Your task to perform on an android device: Open calendar and show me the fourth week of next month Image 0: 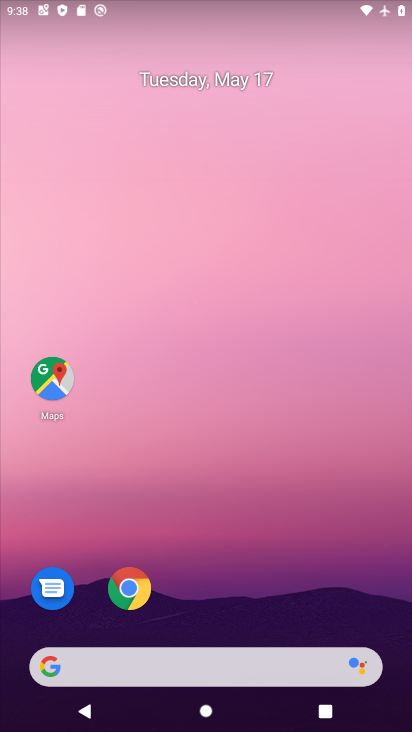
Step 0: drag from (227, 639) to (195, 125)
Your task to perform on an android device: Open calendar and show me the fourth week of next month Image 1: 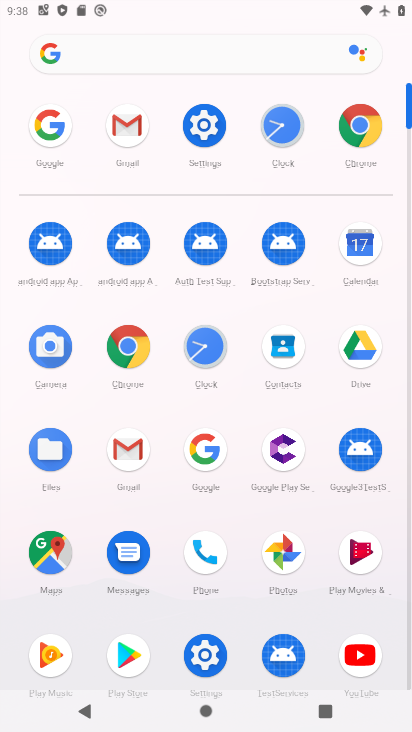
Step 1: click (372, 256)
Your task to perform on an android device: Open calendar and show me the fourth week of next month Image 2: 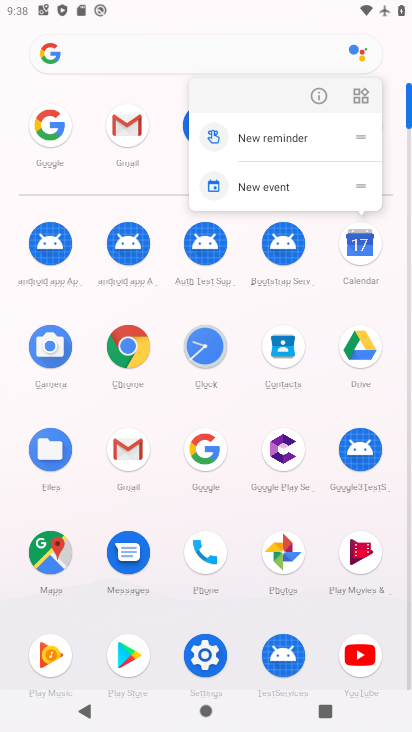
Step 2: click (370, 259)
Your task to perform on an android device: Open calendar and show me the fourth week of next month Image 3: 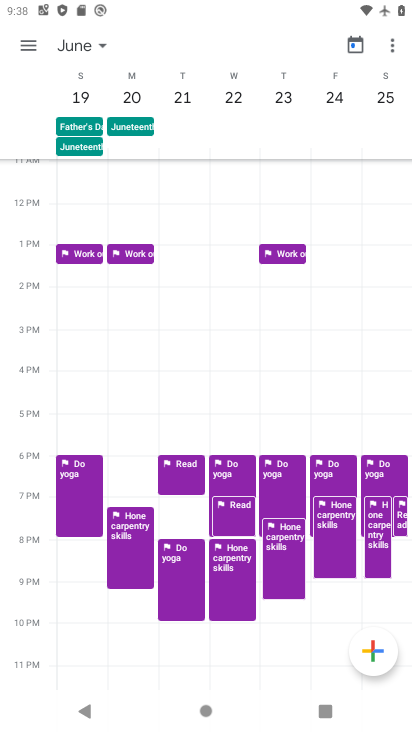
Step 3: task complete